Your task to perform on an android device: Go to network settings Image 0: 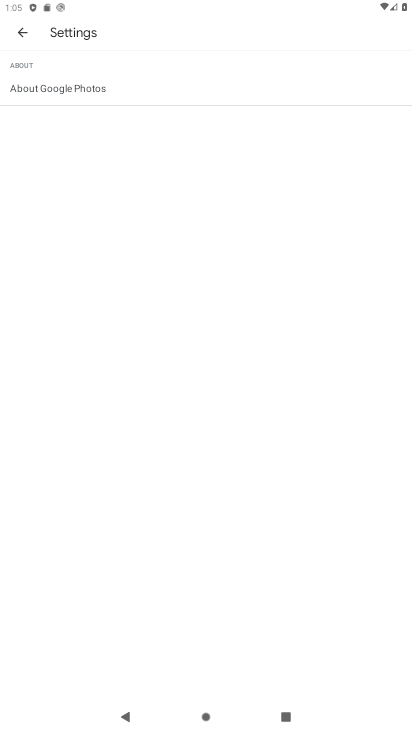
Step 0: press home button
Your task to perform on an android device: Go to network settings Image 1: 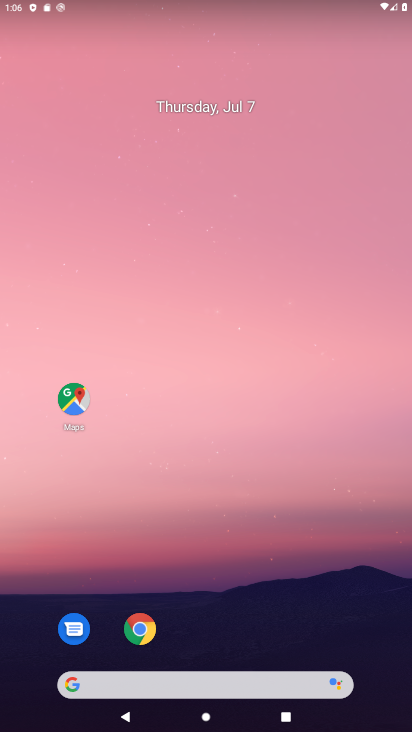
Step 1: drag from (218, 652) to (246, 169)
Your task to perform on an android device: Go to network settings Image 2: 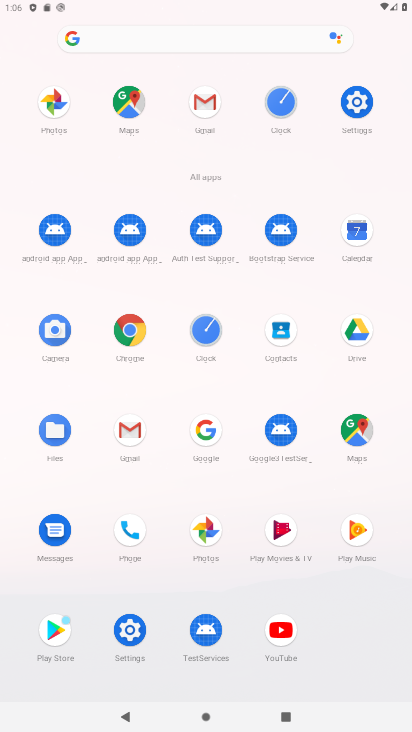
Step 2: click (139, 628)
Your task to perform on an android device: Go to network settings Image 3: 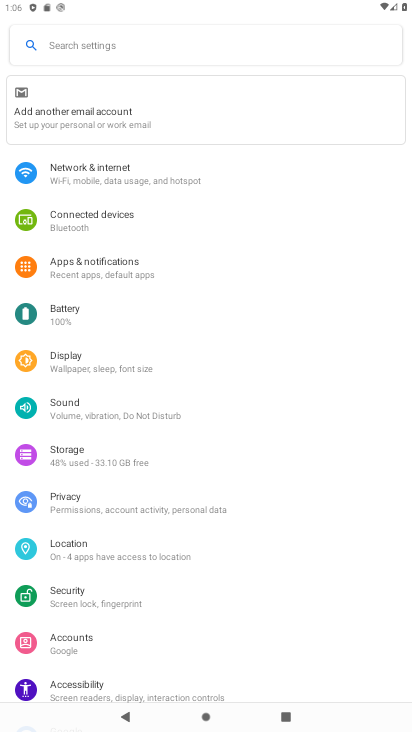
Step 3: click (150, 168)
Your task to perform on an android device: Go to network settings Image 4: 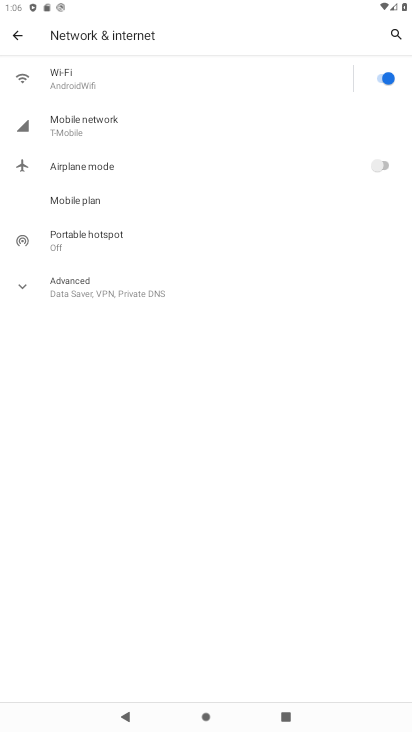
Step 4: click (109, 139)
Your task to perform on an android device: Go to network settings Image 5: 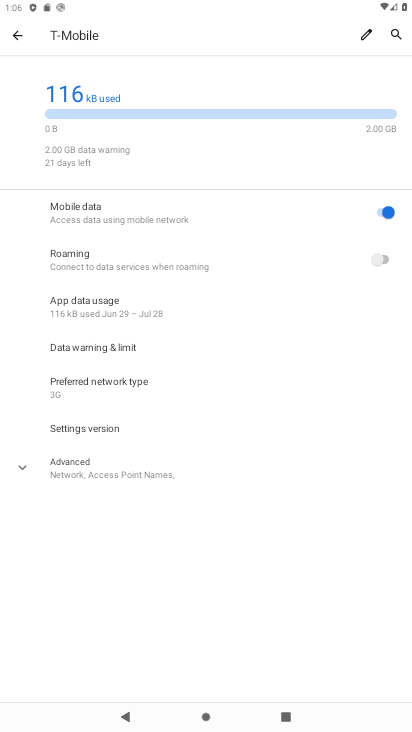
Step 5: task complete